Your task to perform on an android device: toggle translation in the chrome app Image 0: 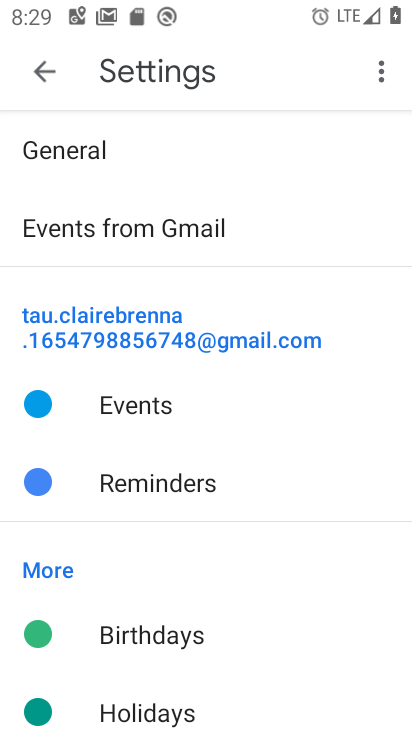
Step 0: press home button
Your task to perform on an android device: toggle translation in the chrome app Image 1: 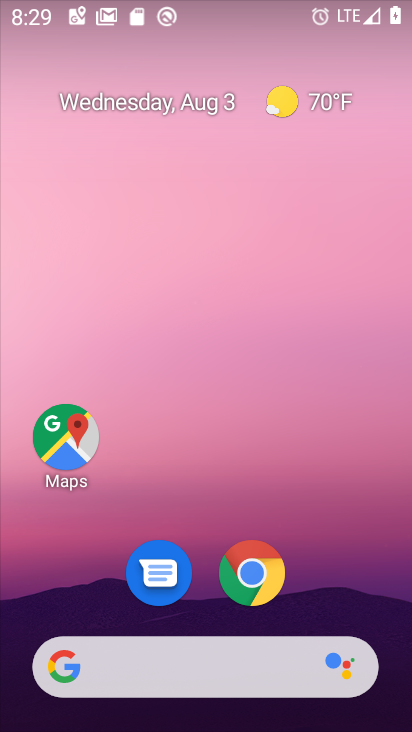
Step 1: click (252, 574)
Your task to perform on an android device: toggle translation in the chrome app Image 2: 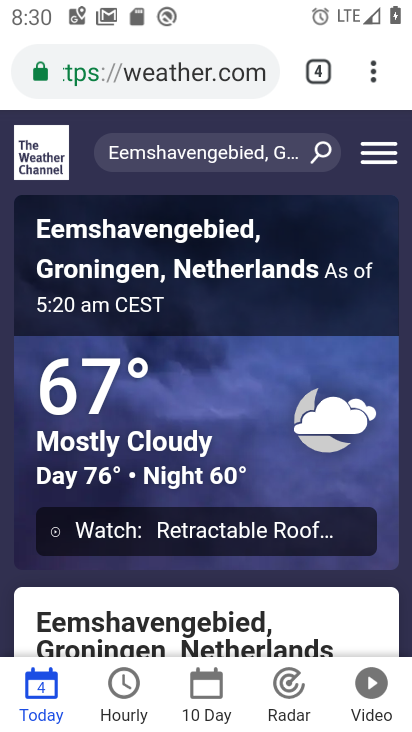
Step 2: click (373, 73)
Your task to perform on an android device: toggle translation in the chrome app Image 3: 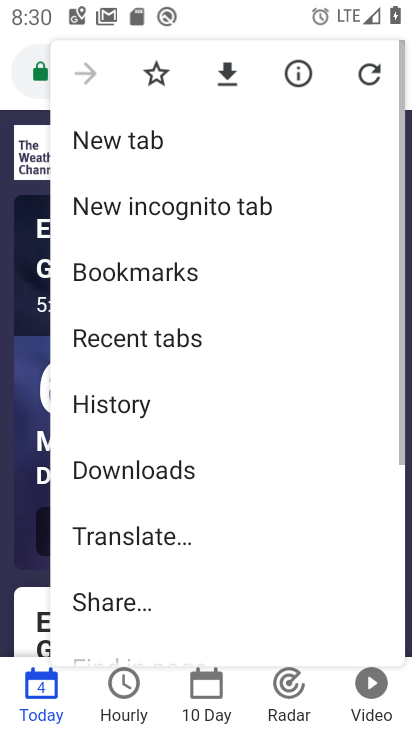
Step 3: drag from (208, 452) to (203, 261)
Your task to perform on an android device: toggle translation in the chrome app Image 4: 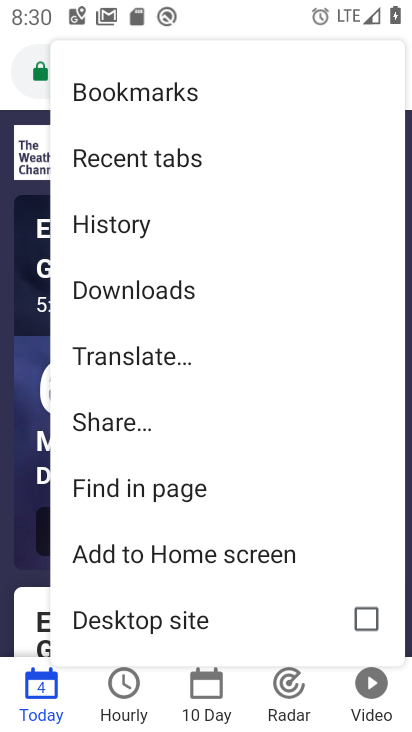
Step 4: drag from (290, 500) to (279, 235)
Your task to perform on an android device: toggle translation in the chrome app Image 5: 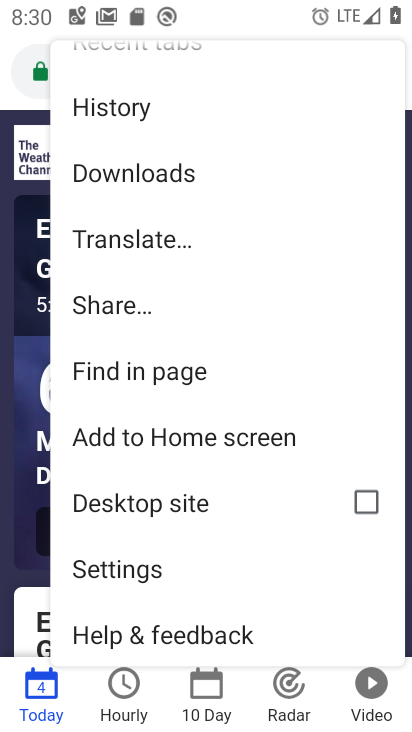
Step 5: click (110, 576)
Your task to perform on an android device: toggle translation in the chrome app Image 6: 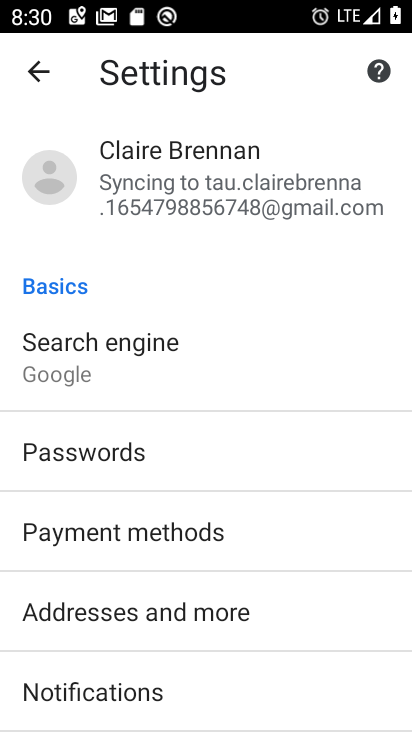
Step 6: drag from (261, 640) to (299, 161)
Your task to perform on an android device: toggle translation in the chrome app Image 7: 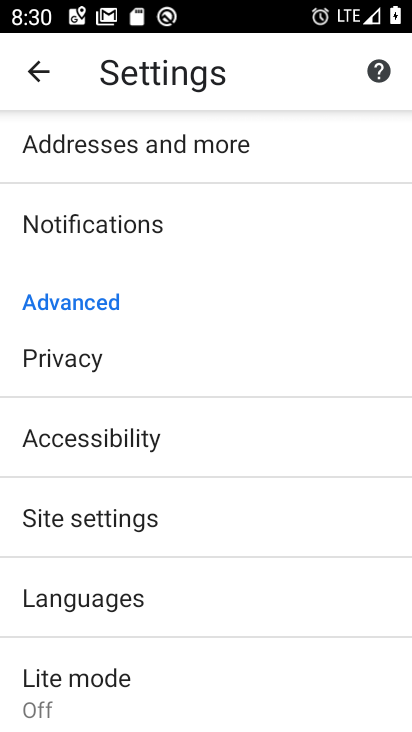
Step 7: click (75, 601)
Your task to perform on an android device: toggle translation in the chrome app Image 8: 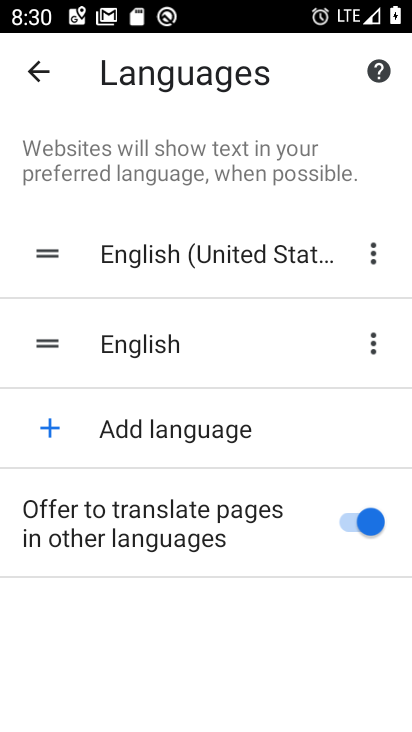
Step 8: click (358, 523)
Your task to perform on an android device: toggle translation in the chrome app Image 9: 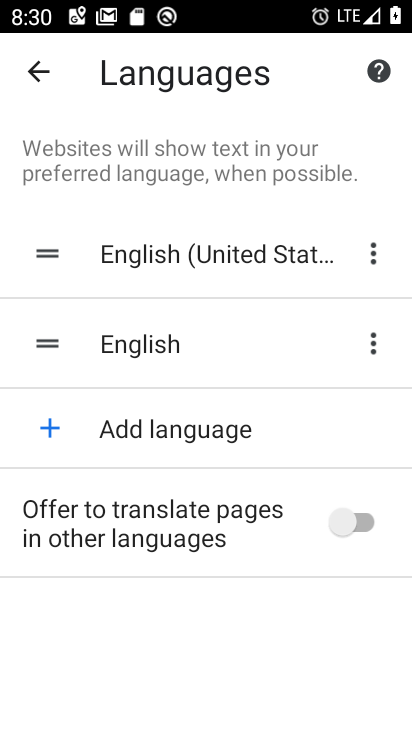
Step 9: task complete